Your task to perform on an android device: Open display settings Image 0: 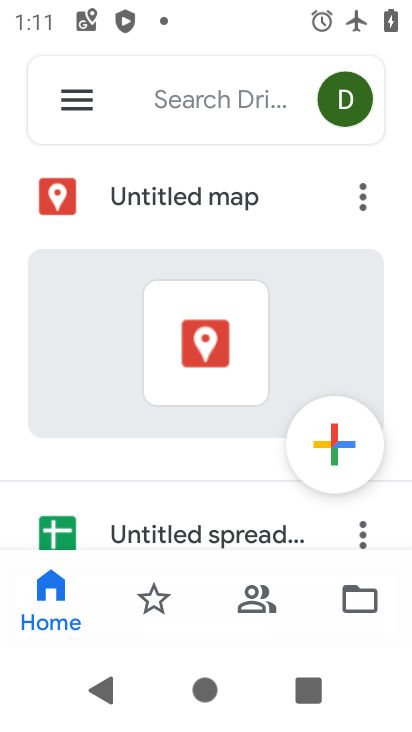
Step 0: press home button
Your task to perform on an android device: Open display settings Image 1: 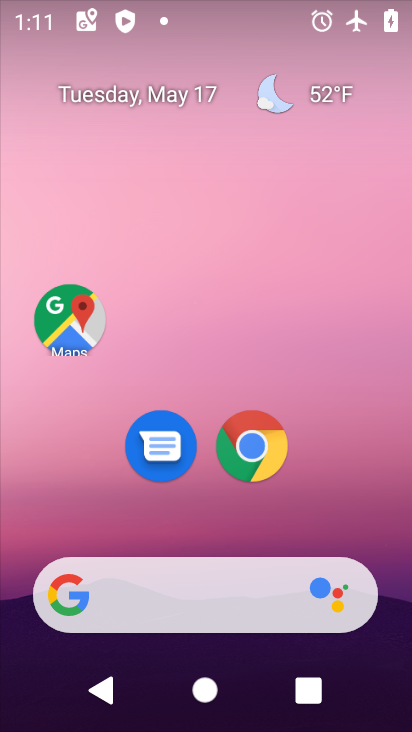
Step 1: drag from (202, 516) to (267, 218)
Your task to perform on an android device: Open display settings Image 2: 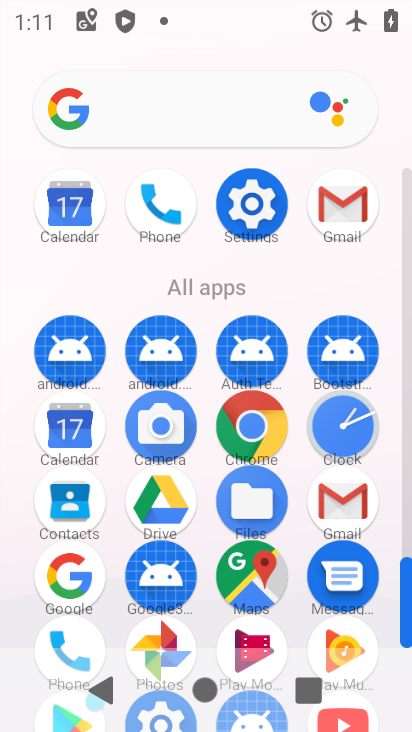
Step 2: click (253, 198)
Your task to perform on an android device: Open display settings Image 3: 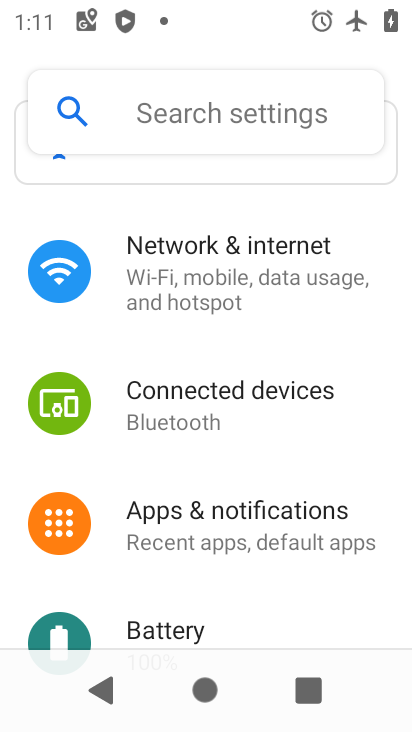
Step 3: drag from (187, 451) to (232, 225)
Your task to perform on an android device: Open display settings Image 4: 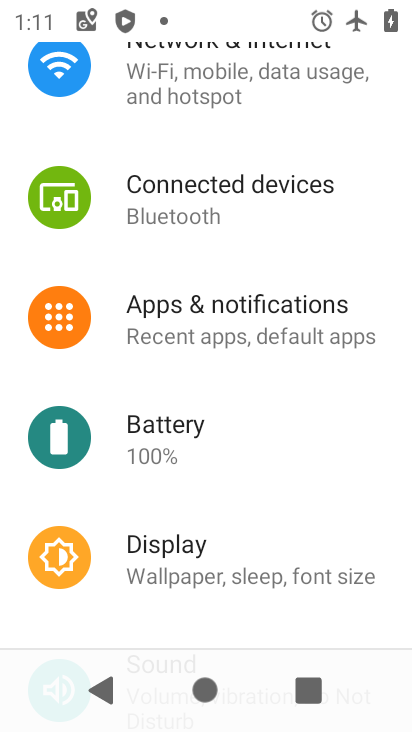
Step 4: click (178, 560)
Your task to perform on an android device: Open display settings Image 5: 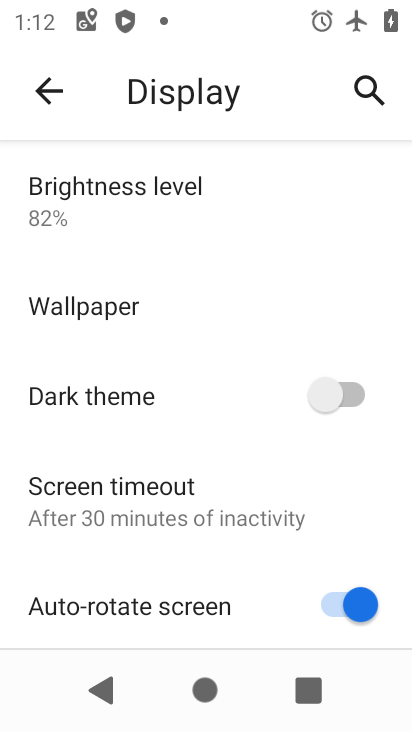
Step 5: task complete